Your task to perform on an android device: Is it going to rain this weekend? Image 0: 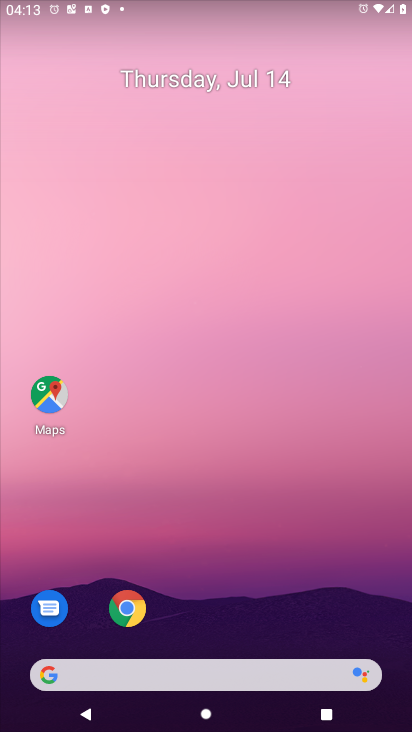
Step 0: drag from (5, 257) to (381, 289)
Your task to perform on an android device: Is it going to rain this weekend? Image 1: 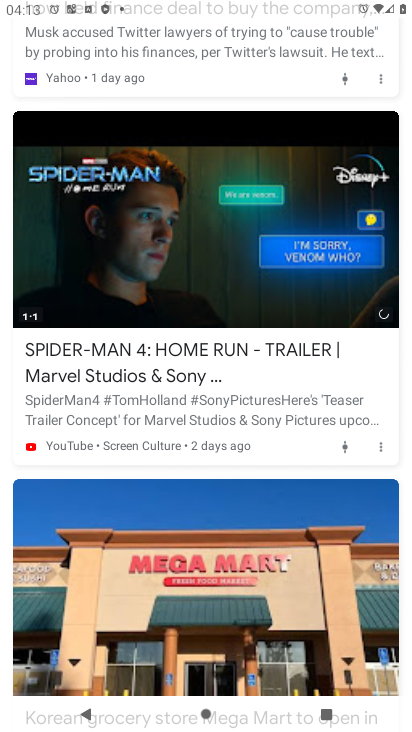
Step 1: task complete